Your task to perform on an android device: Open Chrome and go to the settings page Image 0: 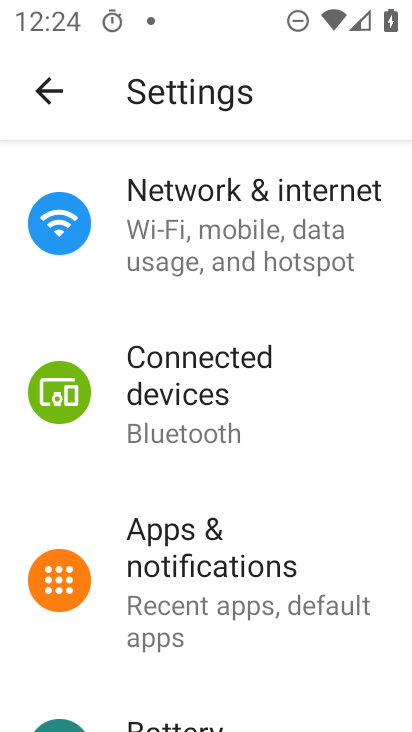
Step 0: press home button
Your task to perform on an android device: Open Chrome and go to the settings page Image 1: 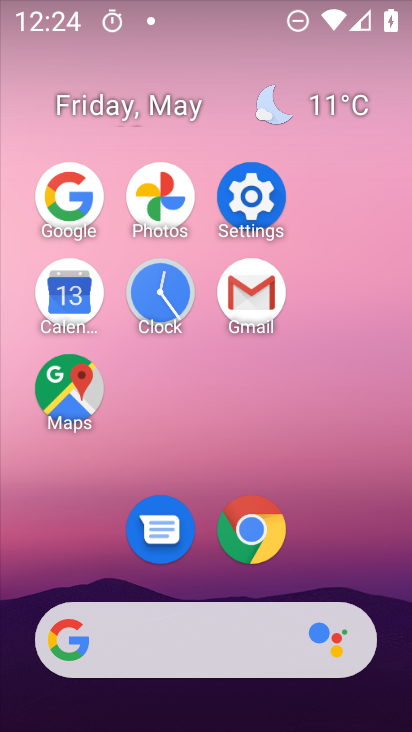
Step 1: click (240, 564)
Your task to perform on an android device: Open Chrome and go to the settings page Image 2: 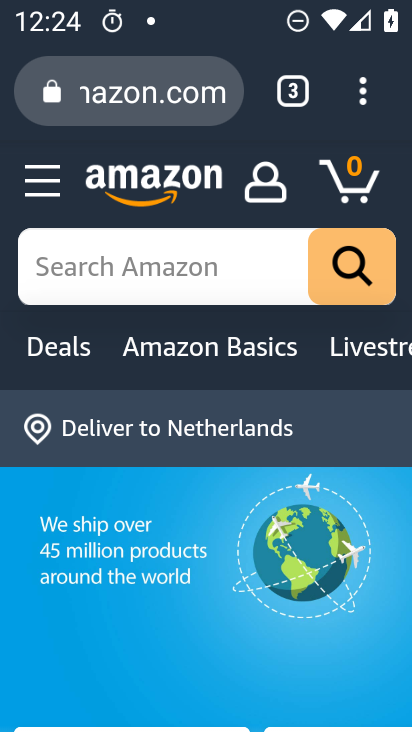
Step 2: click (365, 100)
Your task to perform on an android device: Open Chrome and go to the settings page Image 3: 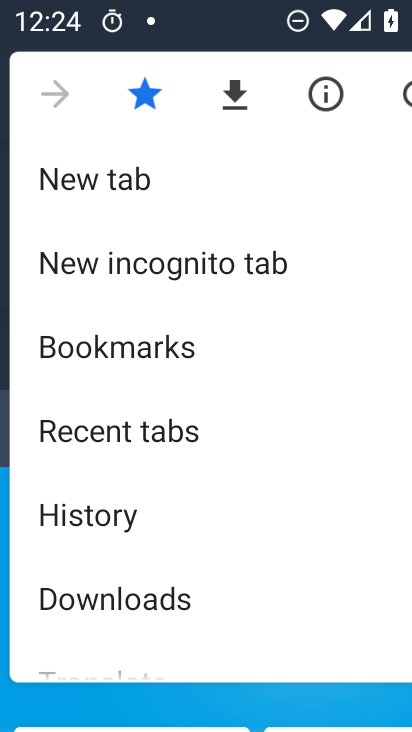
Step 3: drag from (261, 502) to (215, 78)
Your task to perform on an android device: Open Chrome and go to the settings page Image 4: 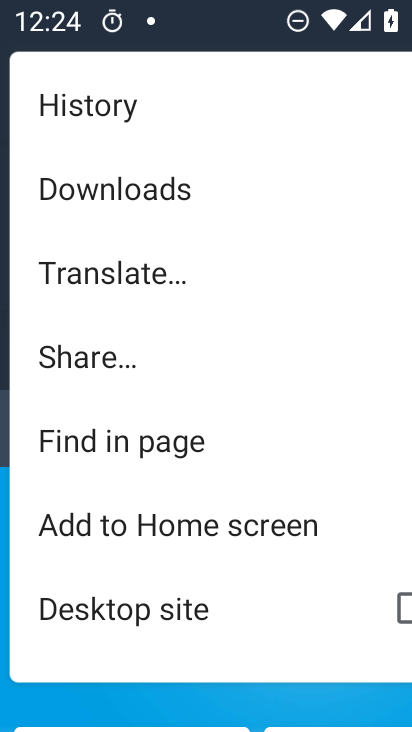
Step 4: drag from (236, 483) to (232, 101)
Your task to perform on an android device: Open Chrome and go to the settings page Image 5: 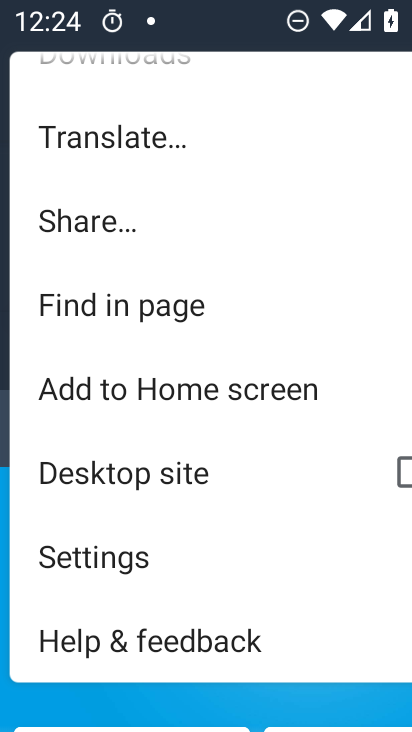
Step 5: click (175, 558)
Your task to perform on an android device: Open Chrome and go to the settings page Image 6: 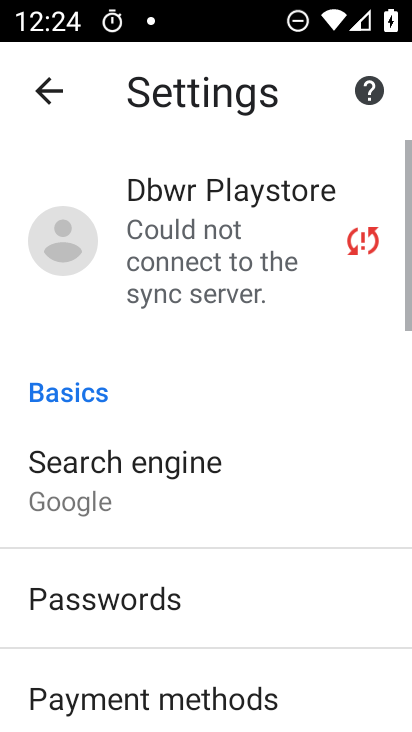
Step 6: task complete